Your task to perform on an android device: turn on wifi Image 0: 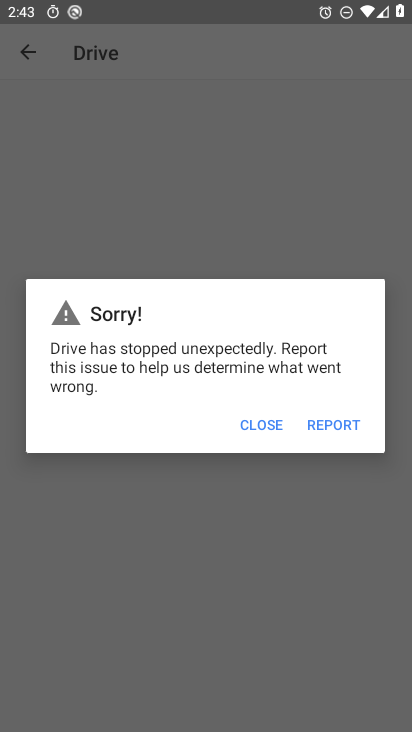
Step 0: press home button
Your task to perform on an android device: turn on wifi Image 1: 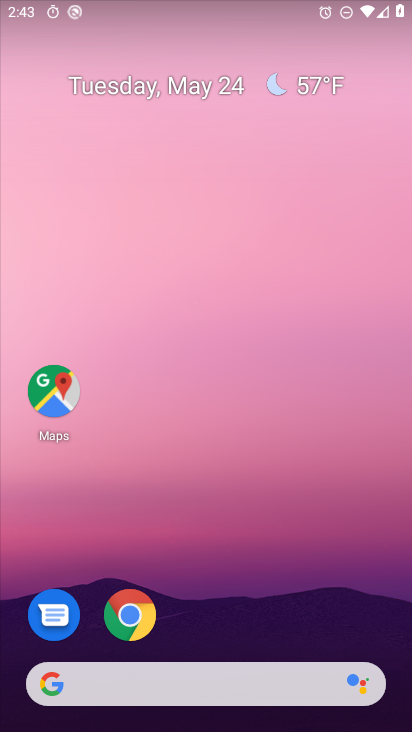
Step 1: drag from (206, 651) to (202, 266)
Your task to perform on an android device: turn on wifi Image 2: 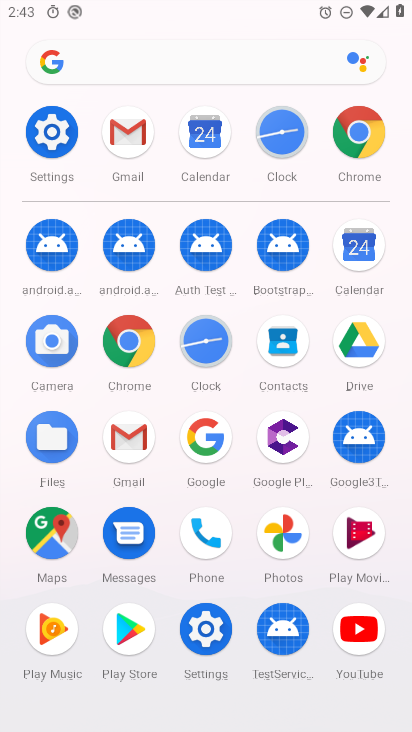
Step 2: click (65, 129)
Your task to perform on an android device: turn on wifi Image 3: 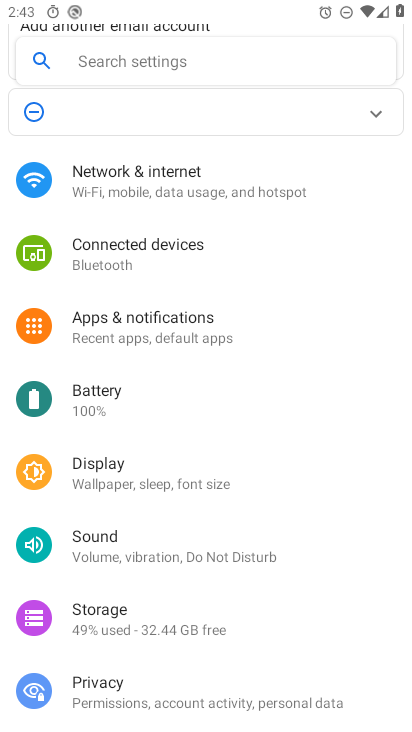
Step 3: click (138, 177)
Your task to perform on an android device: turn on wifi Image 4: 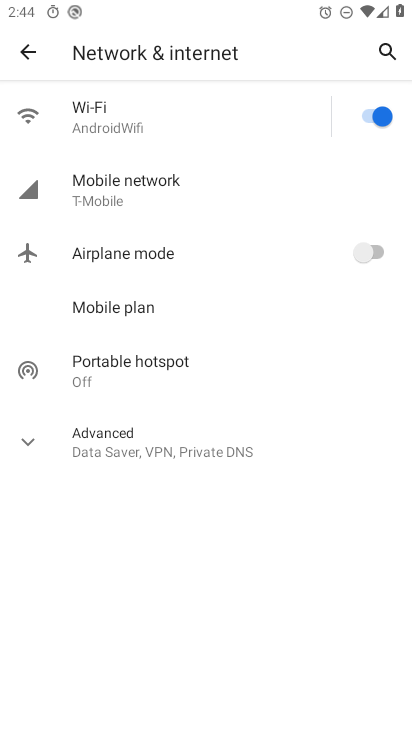
Step 4: task complete